Your task to perform on an android device: Open wifi settings Image 0: 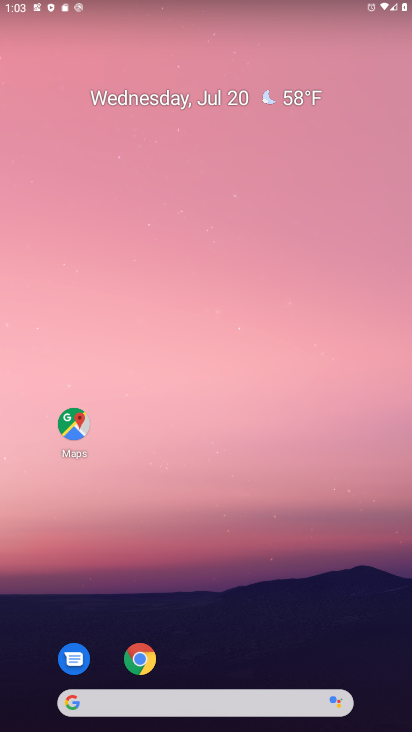
Step 0: press home button
Your task to perform on an android device: Open wifi settings Image 1: 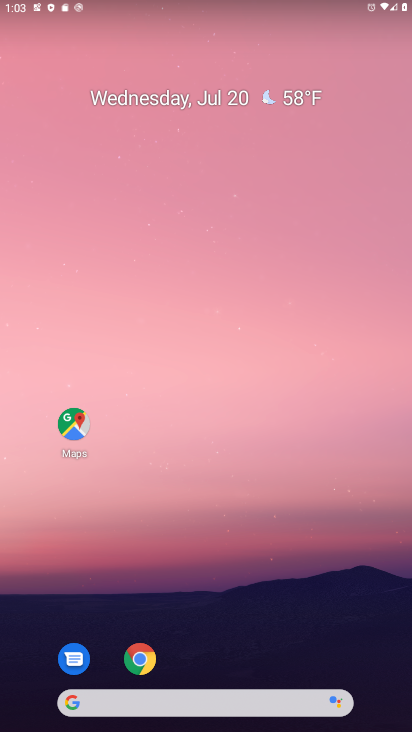
Step 1: drag from (229, 642) to (234, 129)
Your task to perform on an android device: Open wifi settings Image 2: 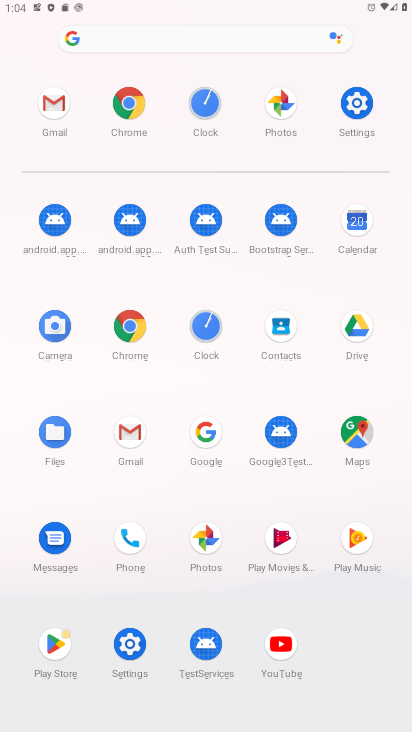
Step 2: click (358, 97)
Your task to perform on an android device: Open wifi settings Image 3: 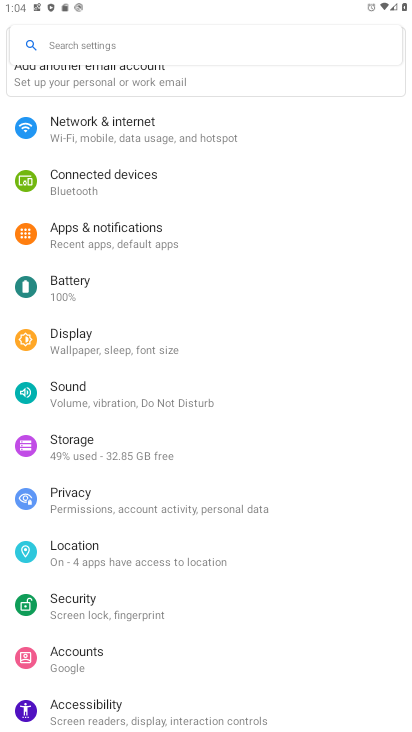
Step 3: click (129, 127)
Your task to perform on an android device: Open wifi settings Image 4: 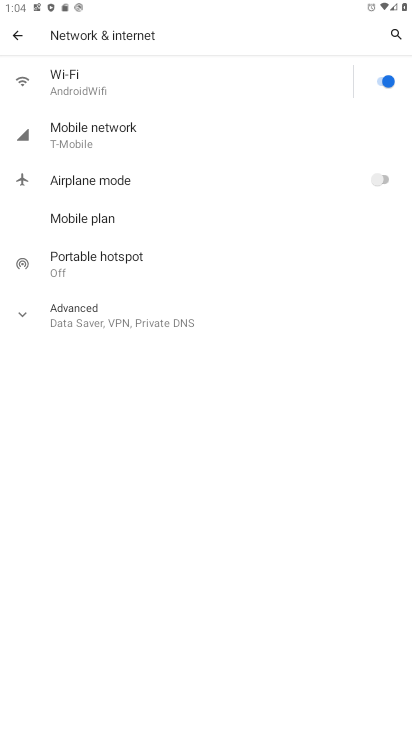
Step 4: click (147, 78)
Your task to perform on an android device: Open wifi settings Image 5: 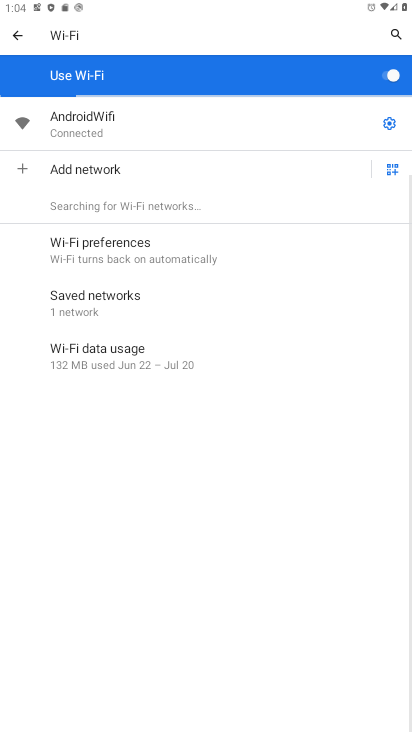
Step 5: task complete